Your task to perform on an android device: turn on priority inbox in the gmail app Image 0: 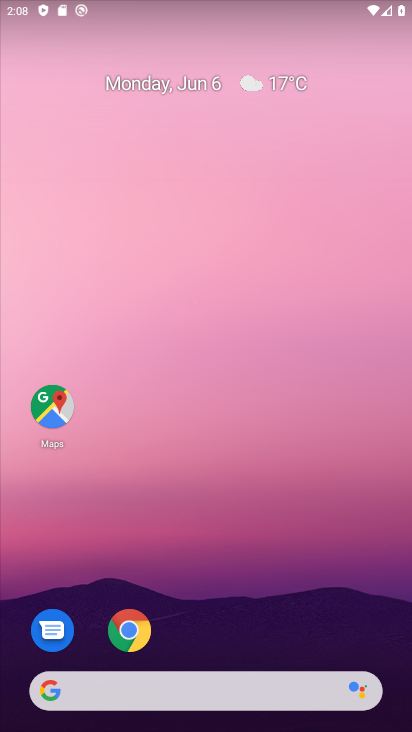
Step 0: drag from (252, 577) to (257, 120)
Your task to perform on an android device: turn on priority inbox in the gmail app Image 1: 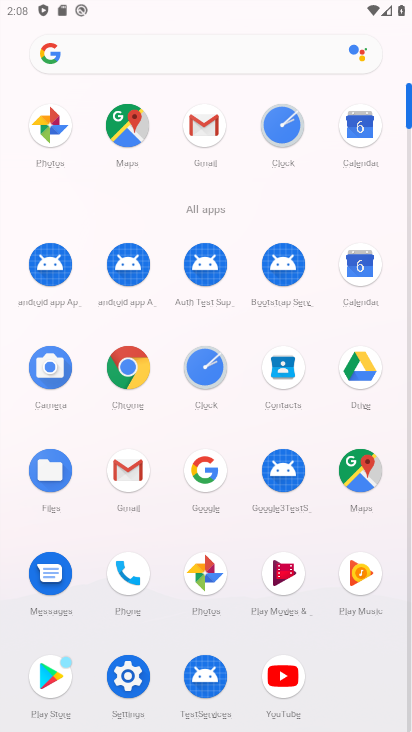
Step 1: click (125, 674)
Your task to perform on an android device: turn on priority inbox in the gmail app Image 2: 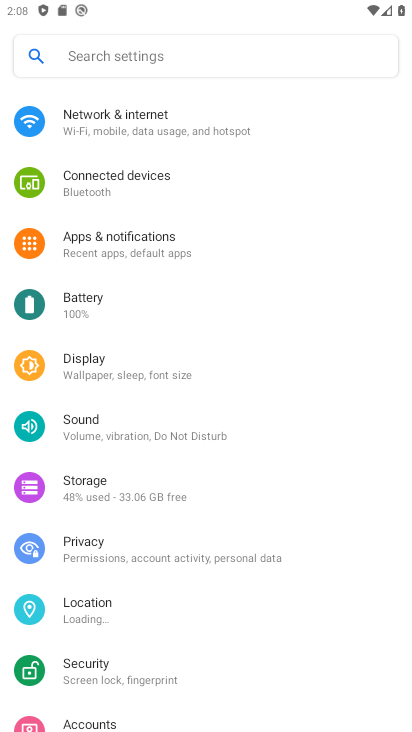
Step 2: press home button
Your task to perform on an android device: turn on priority inbox in the gmail app Image 3: 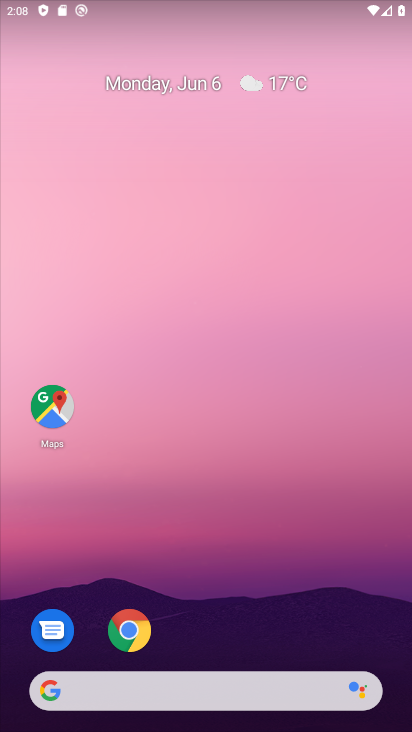
Step 3: drag from (319, 620) to (290, 85)
Your task to perform on an android device: turn on priority inbox in the gmail app Image 4: 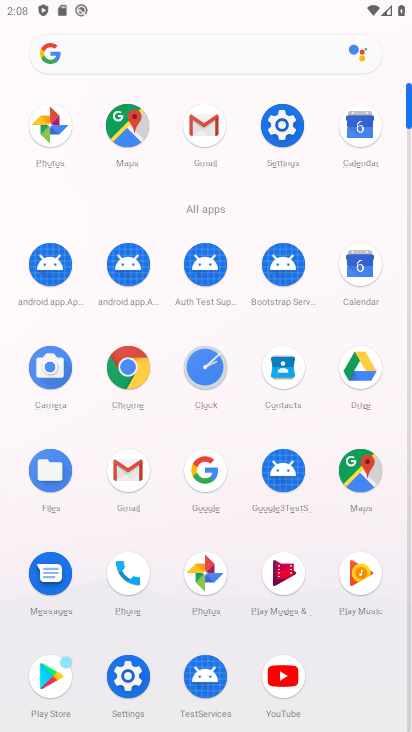
Step 4: click (133, 464)
Your task to perform on an android device: turn on priority inbox in the gmail app Image 5: 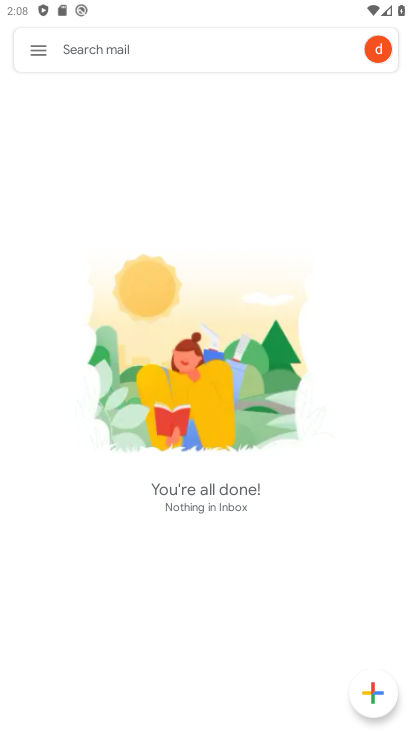
Step 5: click (37, 52)
Your task to perform on an android device: turn on priority inbox in the gmail app Image 6: 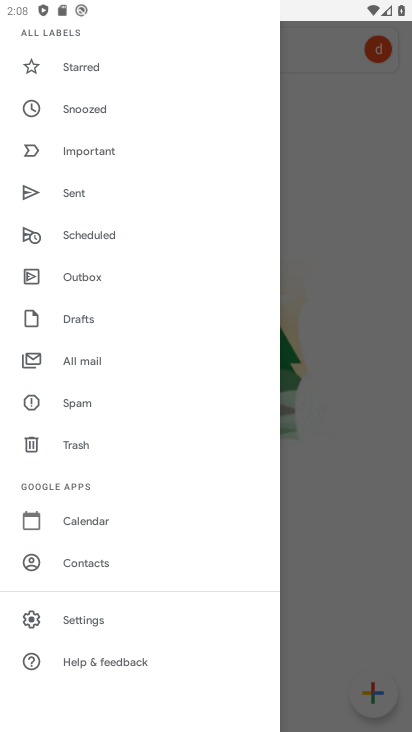
Step 6: click (88, 616)
Your task to perform on an android device: turn on priority inbox in the gmail app Image 7: 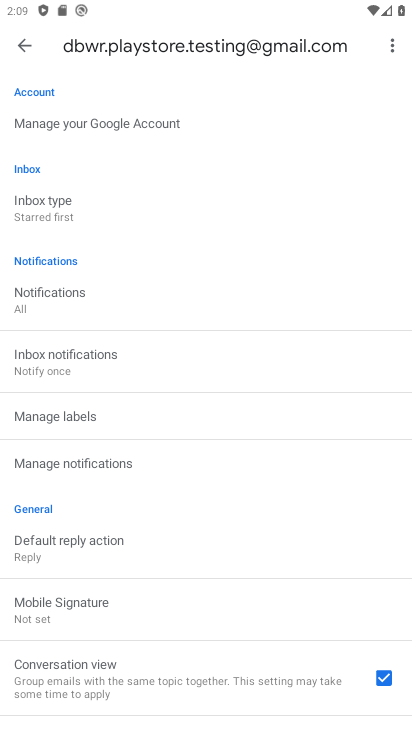
Step 7: click (45, 215)
Your task to perform on an android device: turn on priority inbox in the gmail app Image 8: 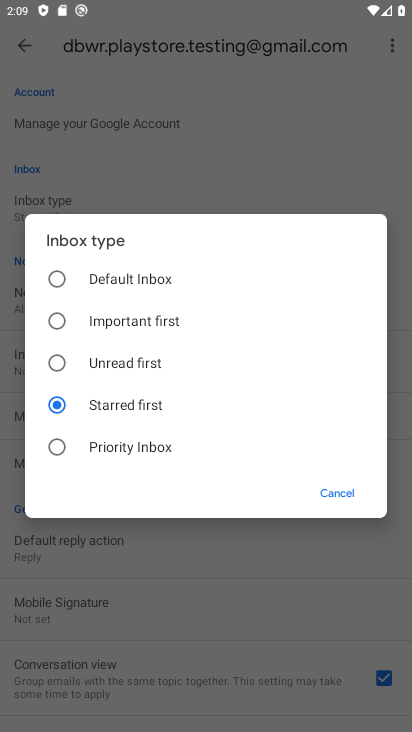
Step 8: click (106, 436)
Your task to perform on an android device: turn on priority inbox in the gmail app Image 9: 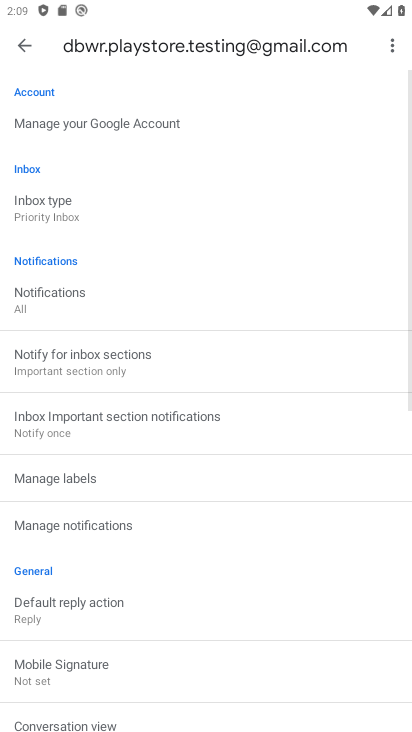
Step 9: task complete